Your task to perform on an android device: turn on improve location accuracy Image 0: 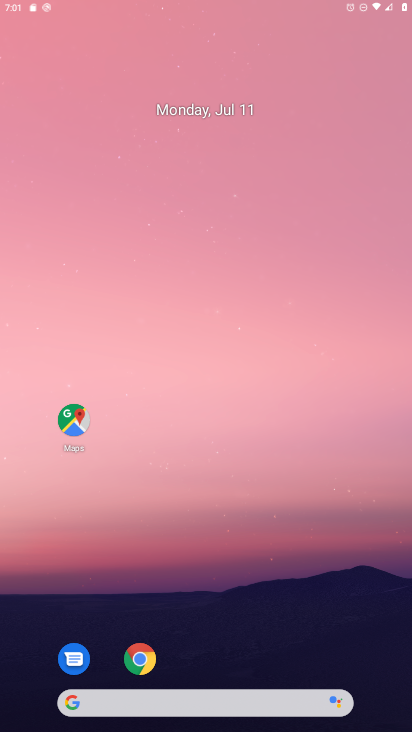
Step 0: press home button
Your task to perform on an android device: turn on improve location accuracy Image 1: 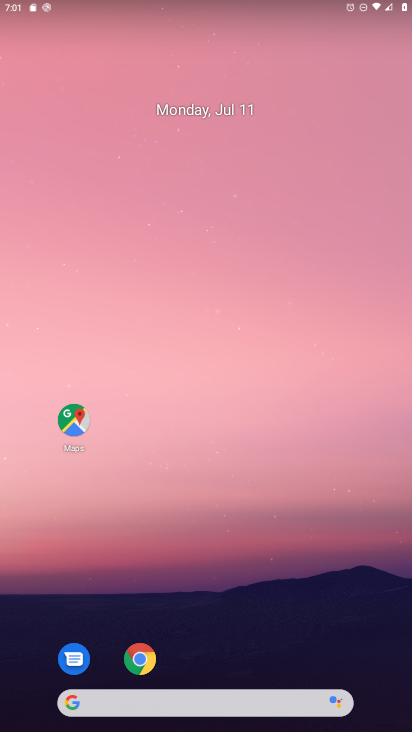
Step 1: drag from (374, 647) to (332, 121)
Your task to perform on an android device: turn on improve location accuracy Image 2: 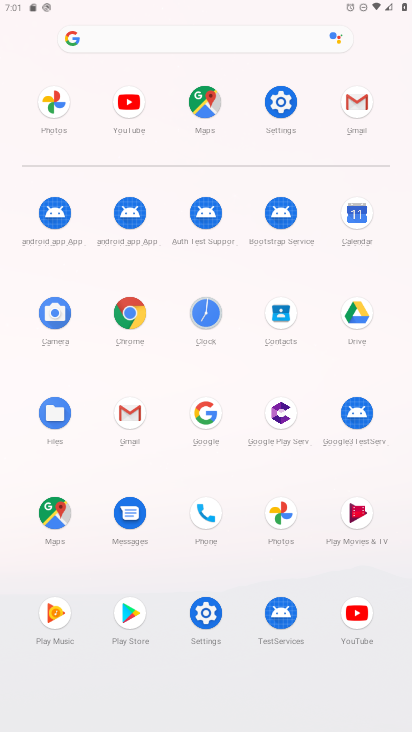
Step 2: click (207, 609)
Your task to perform on an android device: turn on improve location accuracy Image 3: 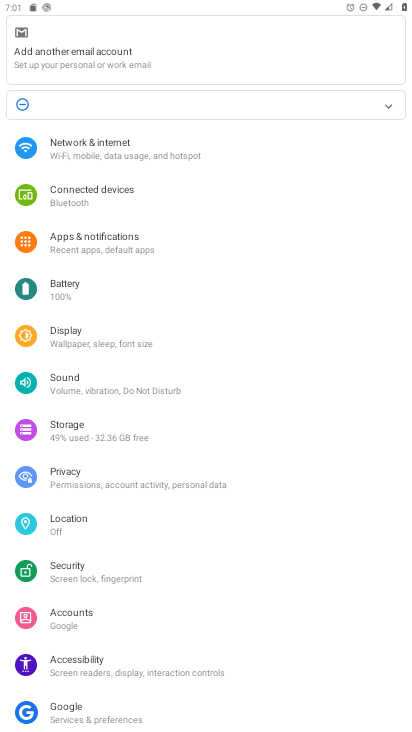
Step 3: click (58, 532)
Your task to perform on an android device: turn on improve location accuracy Image 4: 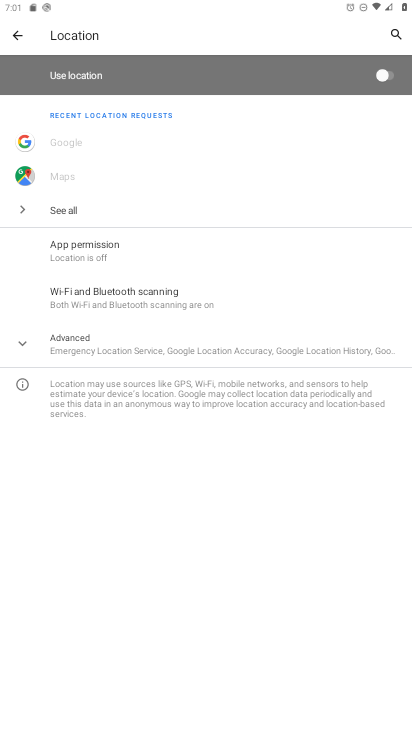
Step 4: click (18, 345)
Your task to perform on an android device: turn on improve location accuracy Image 5: 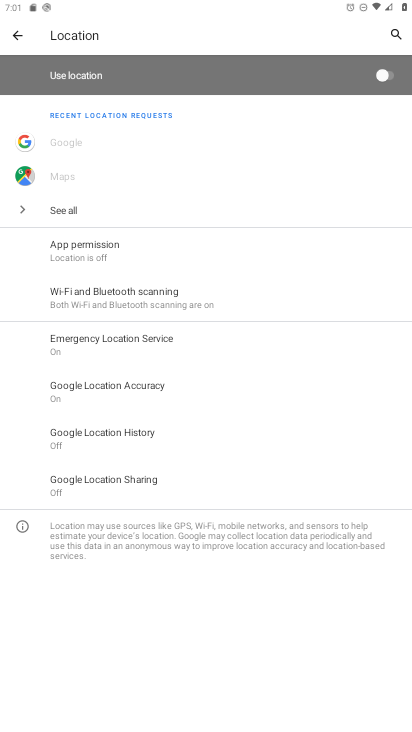
Step 5: click (68, 382)
Your task to perform on an android device: turn on improve location accuracy Image 6: 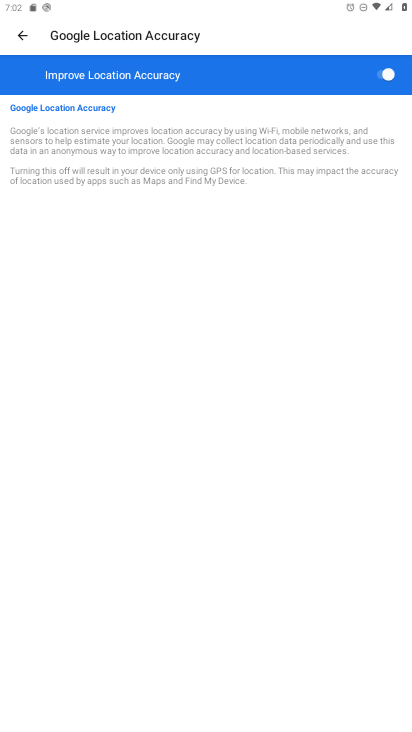
Step 6: task complete